Your task to perform on an android device: turn on sleep mode Image 0: 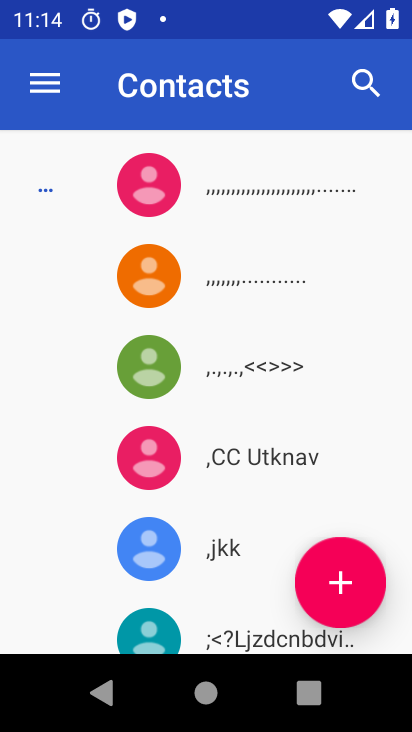
Step 0: press home button
Your task to perform on an android device: turn on sleep mode Image 1: 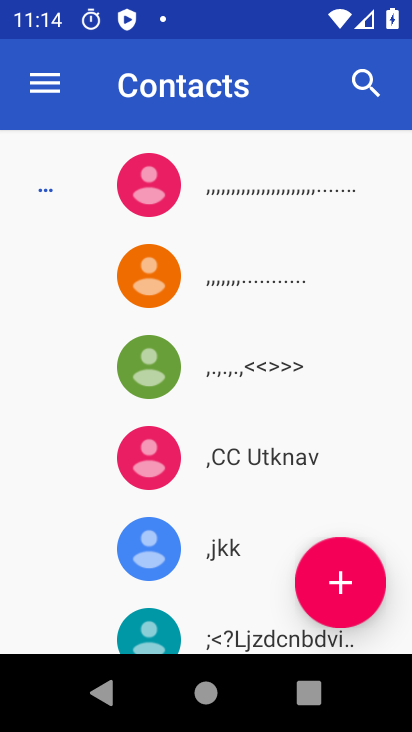
Step 1: task complete